Your task to perform on an android device: Open Wikipedia Image 0: 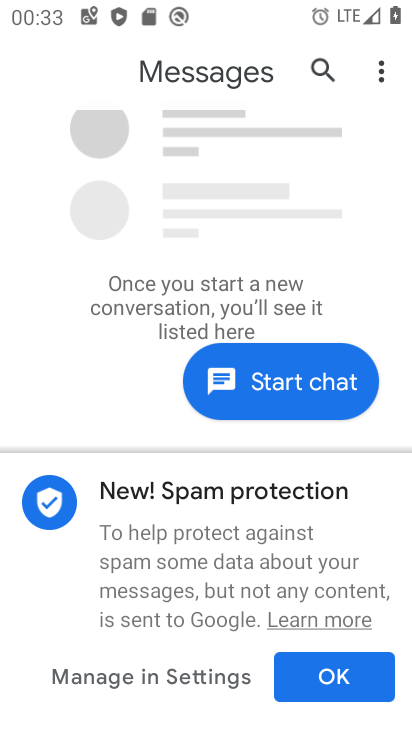
Step 0: press home button
Your task to perform on an android device: Open Wikipedia Image 1: 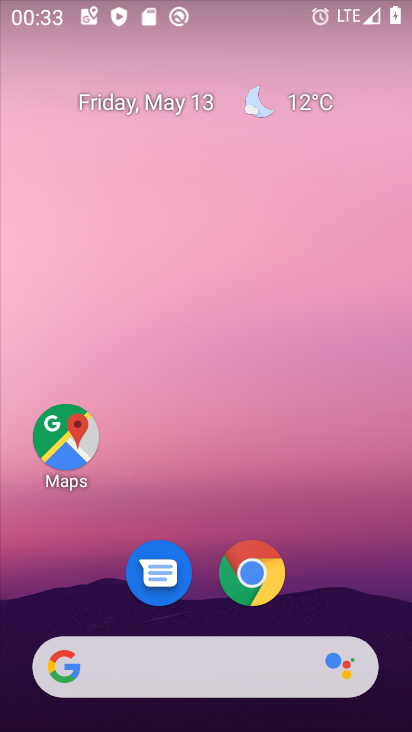
Step 1: type "wikipedia"
Your task to perform on an android device: Open Wikipedia Image 2: 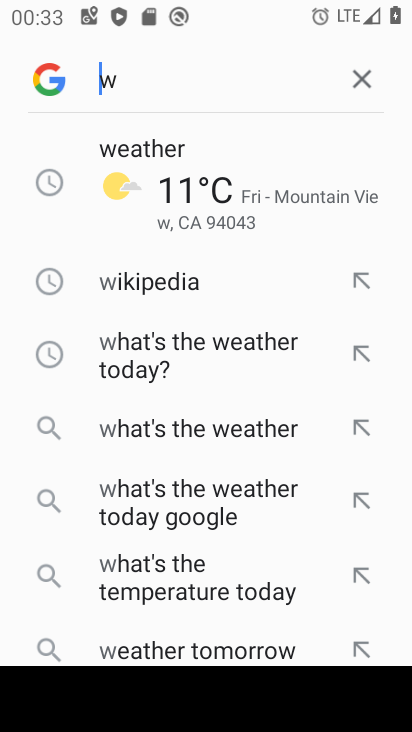
Step 2: click (181, 284)
Your task to perform on an android device: Open Wikipedia Image 3: 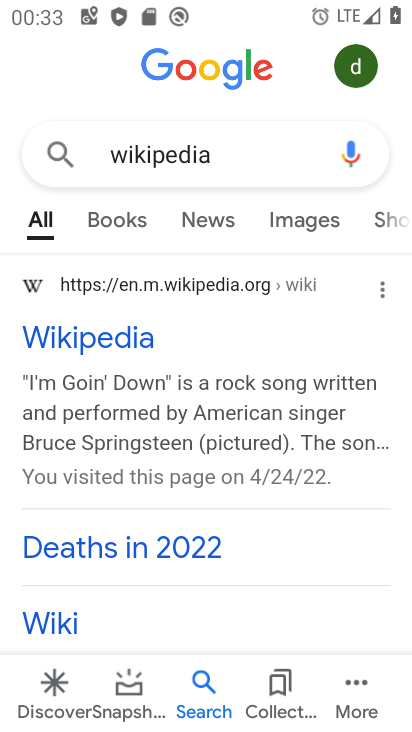
Step 3: click (209, 289)
Your task to perform on an android device: Open Wikipedia Image 4: 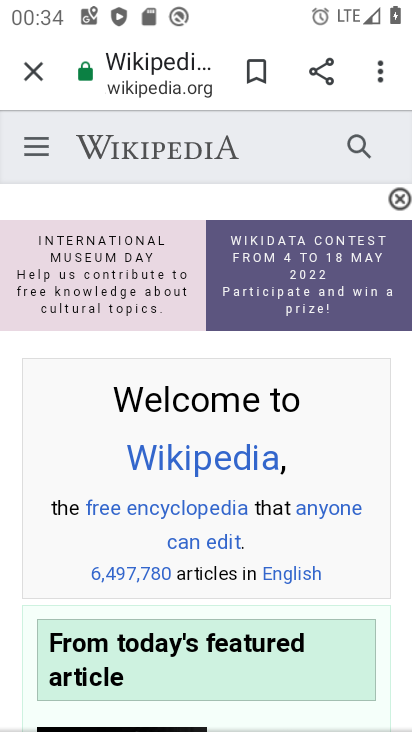
Step 4: task complete